Your task to perform on an android device: Search for the best coffee tables on Crate & Barrel Image 0: 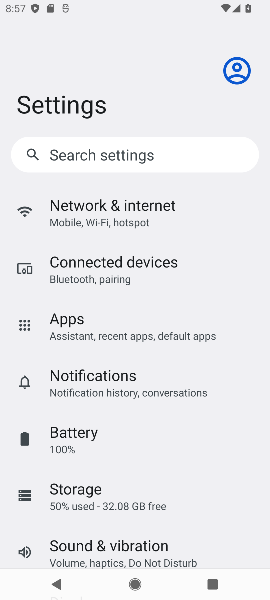
Step 0: press home button
Your task to perform on an android device: Search for the best coffee tables on Crate & Barrel Image 1: 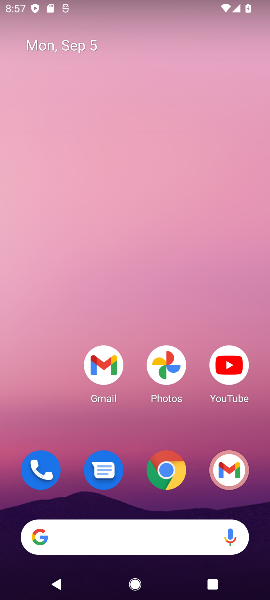
Step 1: click (105, 532)
Your task to perform on an android device: Search for the best coffee tables on Crate & Barrel Image 2: 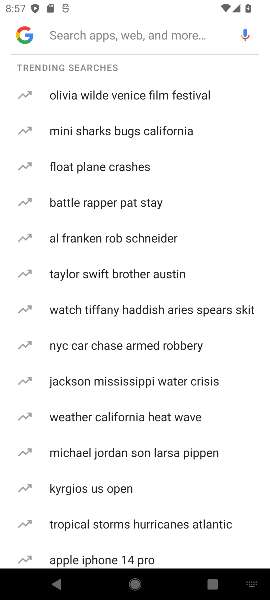
Step 2: type "crate & barrel"
Your task to perform on an android device: Search for the best coffee tables on Crate & Barrel Image 3: 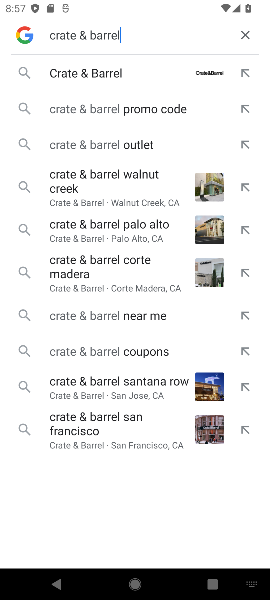
Step 3: click (130, 69)
Your task to perform on an android device: Search for the best coffee tables on Crate & Barrel Image 4: 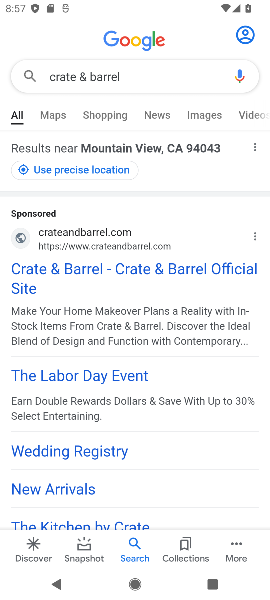
Step 4: click (85, 265)
Your task to perform on an android device: Search for the best coffee tables on Crate & Barrel Image 5: 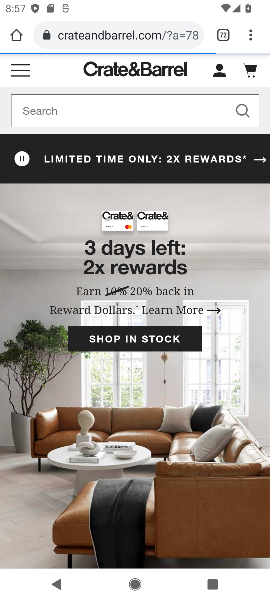
Step 5: click (76, 107)
Your task to perform on an android device: Search for the best coffee tables on Crate & Barrel Image 6: 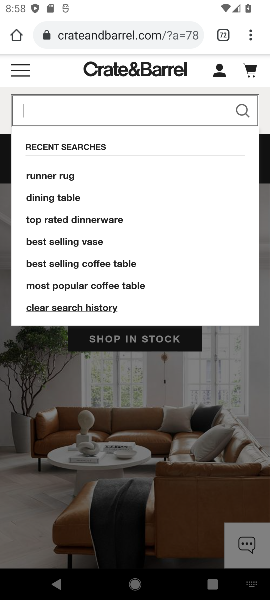
Step 6: type "best coffee table"
Your task to perform on an android device: Search for the best coffee tables on Crate & Barrel Image 7: 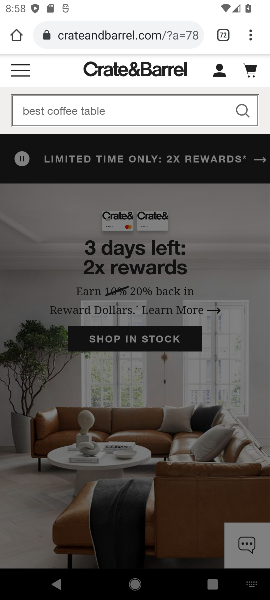
Step 7: click (241, 105)
Your task to perform on an android device: Search for the best coffee tables on Crate & Barrel Image 8: 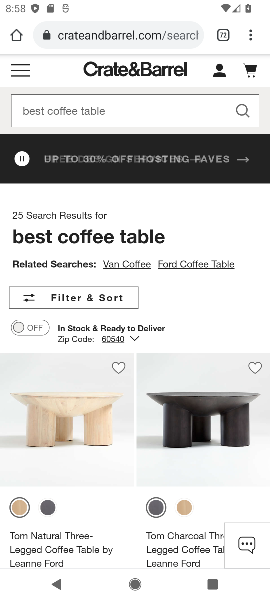
Step 8: task complete